Your task to perform on an android device: empty trash in google photos Image 0: 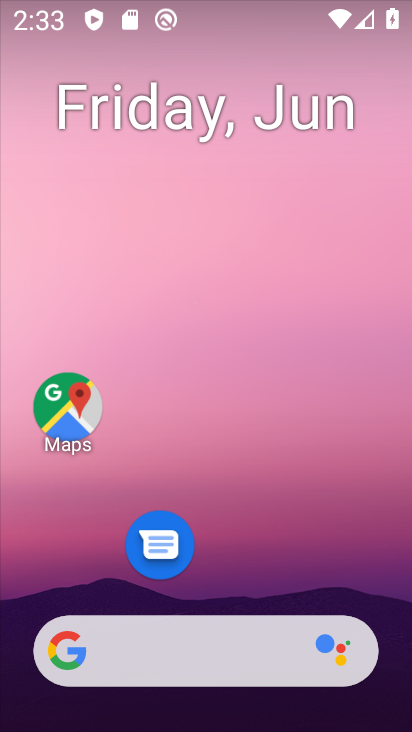
Step 0: drag from (239, 571) to (328, 6)
Your task to perform on an android device: empty trash in google photos Image 1: 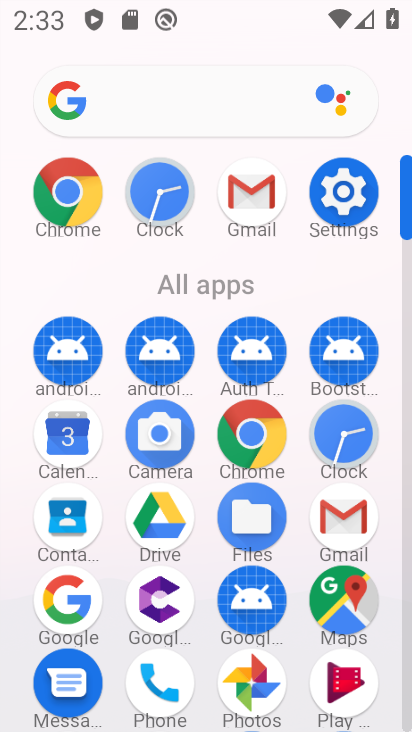
Step 1: drag from (201, 577) to (220, 480)
Your task to perform on an android device: empty trash in google photos Image 2: 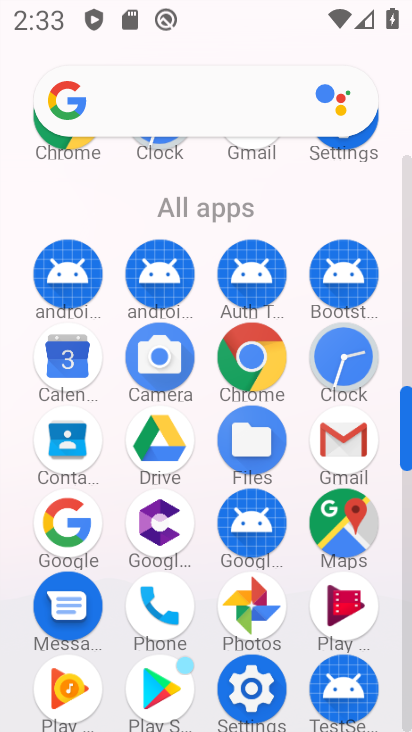
Step 2: click (241, 621)
Your task to perform on an android device: empty trash in google photos Image 3: 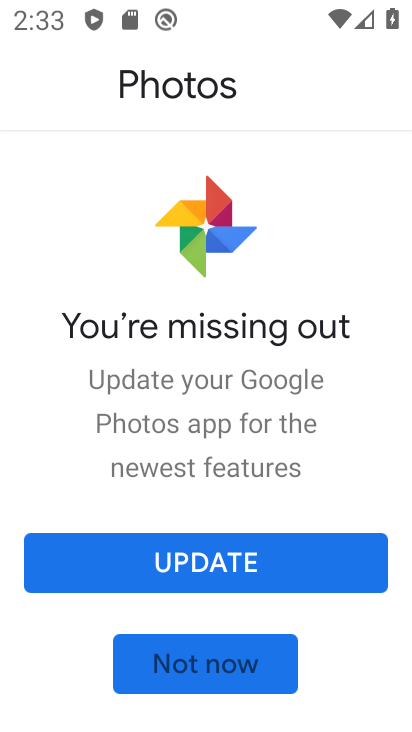
Step 3: click (209, 665)
Your task to perform on an android device: empty trash in google photos Image 4: 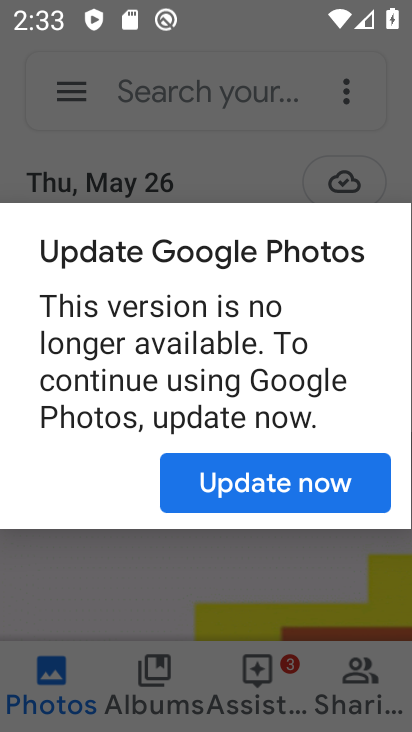
Step 4: click (263, 492)
Your task to perform on an android device: empty trash in google photos Image 5: 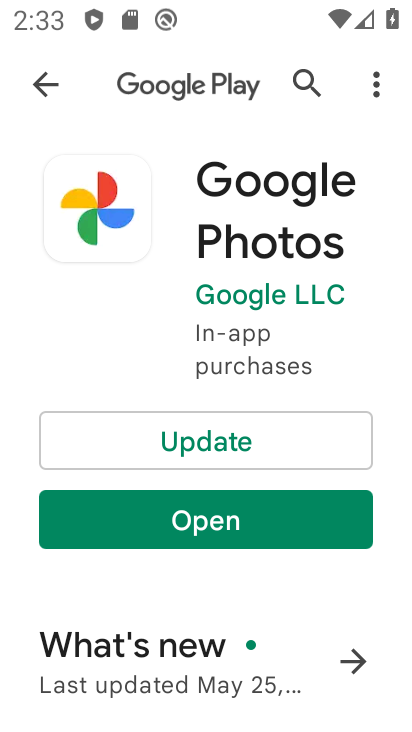
Step 5: click (219, 529)
Your task to perform on an android device: empty trash in google photos Image 6: 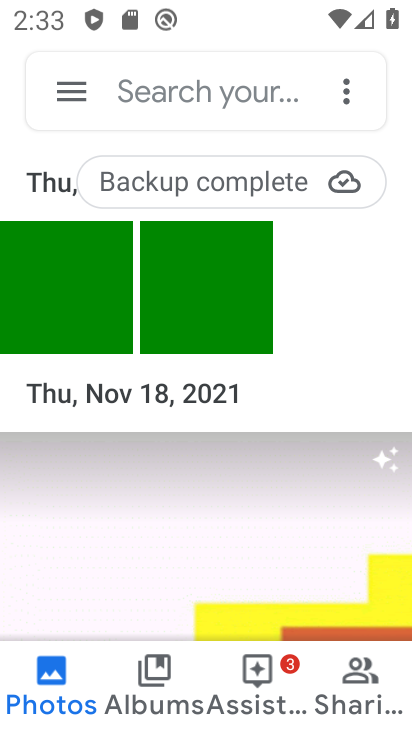
Step 6: click (52, 110)
Your task to perform on an android device: empty trash in google photos Image 7: 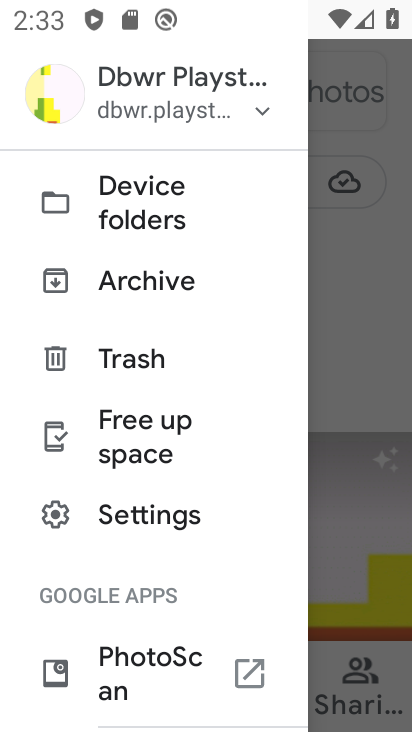
Step 7: click (160, 365)
Your task to perform on an android device: empty trash in google photos Image 8: 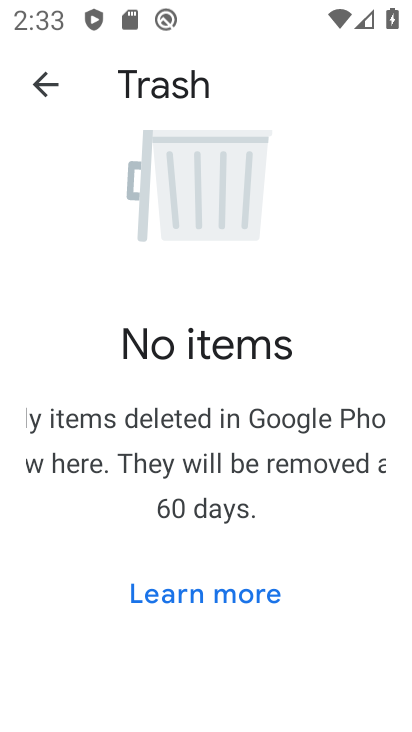
Step 8: task complete